Your task to perform on an android device: toggle notifications settings in the gmail app Image 0: 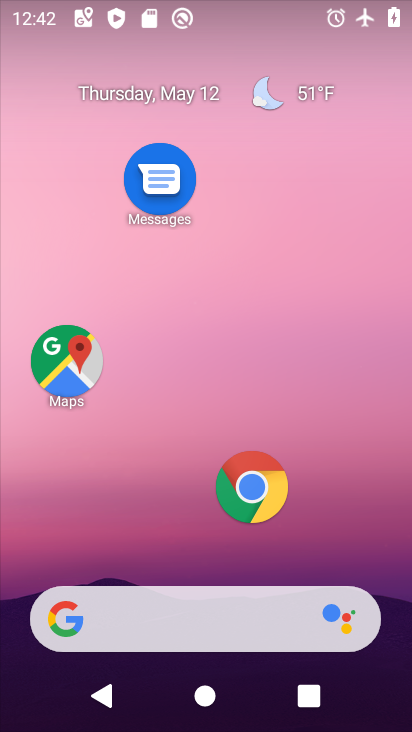
Step 0: drag from (201, 557) to (263, 163)
Your task to perform on an android device: toggle notifications settings in the gmail app Image 1: 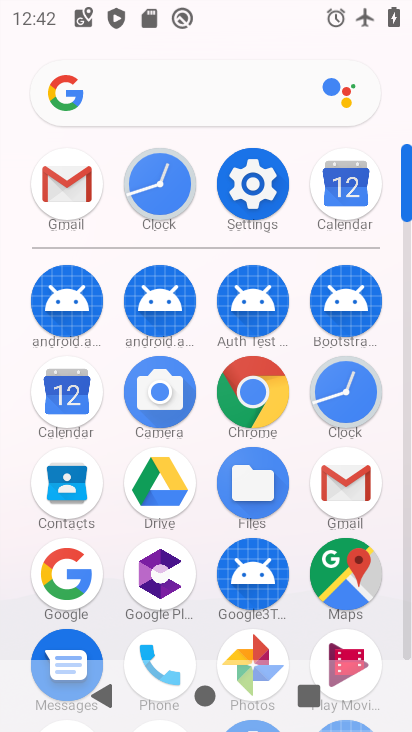
Step 1: click (74, 187)
Your task to perform on an android device: toggle notifications settings in the gmail app Image 2: 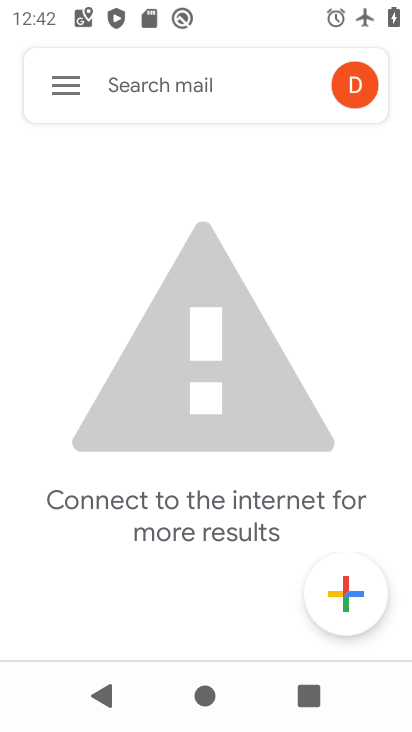
Step 2: click (76, 83)
Your task to perform on an android device: toggle notifications settings in the gmail app Image 3: 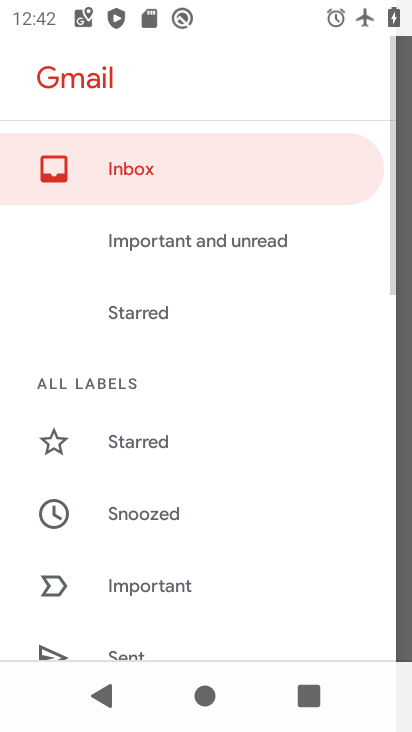
Step 3: drag from (213, 526) to (213, 240)
Your task to perform on an android device: toggle notifications settings in the gmail app Image 4: 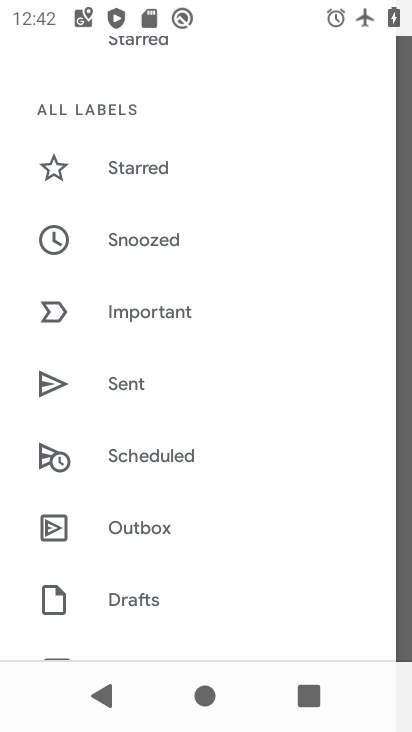
Step 4: drag from (169, 615) to (188, 308)
Your task to perform on an android device: toggle notifications settings in the gmail app Image 5: 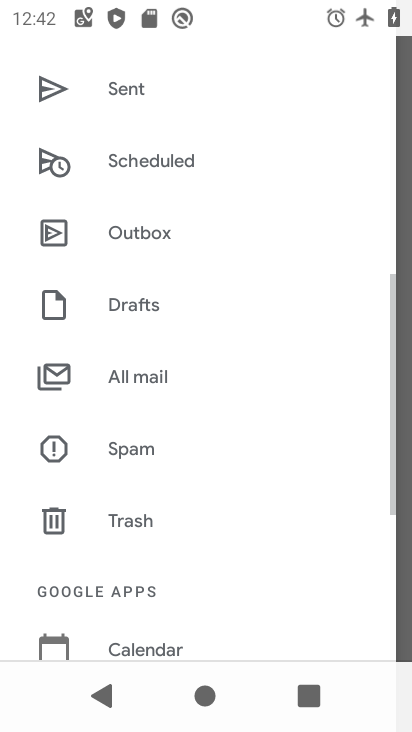
Step 5: drag from (162, 583) to (193, 269)
Your task to perform on an android device: toggle notifications settings in the gmail app Image 6: 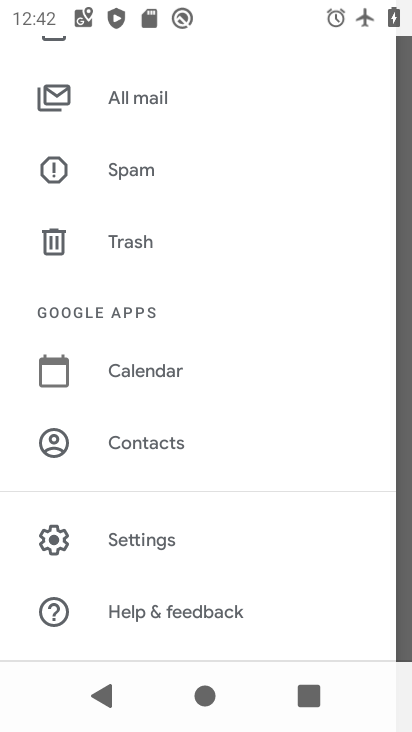
Step 6: click (149, 537)
Your task to perform on an android device: toggle notifications settings in the gmail app Image 7: 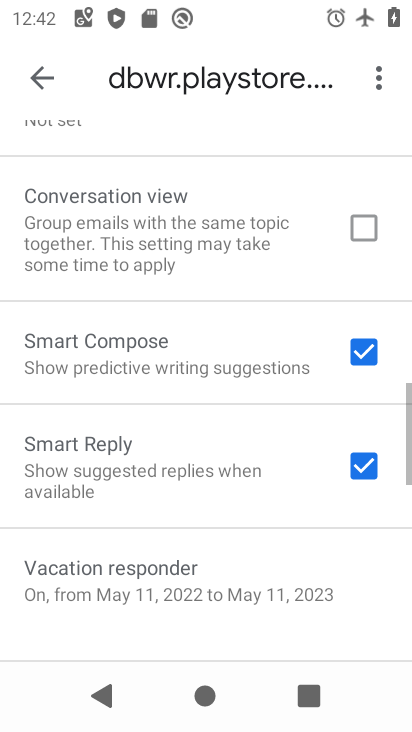
Step 7: drag from (179, 524) to (223, 250)
Your task to perform on an android device: toggle notifications settings in the gmail app Image 8: 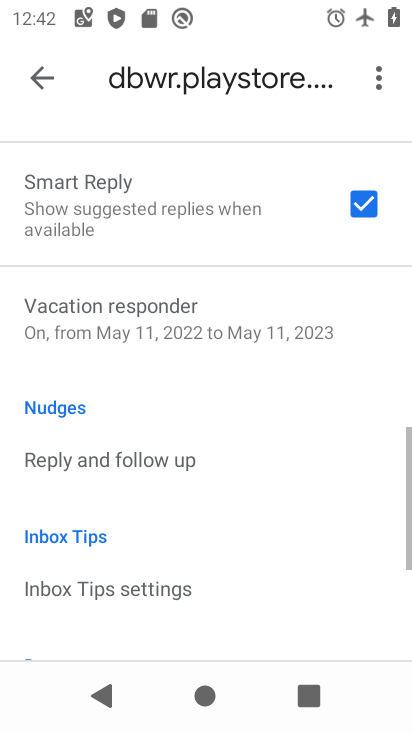
Step 8: click (216, 169)
Your task to perform on an android device: toggle notifications settings in the gmail app Image 9: 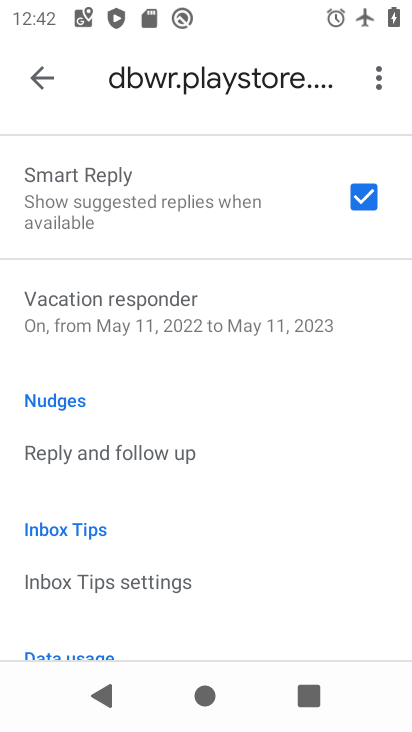
Step 9: drag from (191, 532) to (225, 313)
Your task to perform on an android device: toggle notifications settings in the gmail app Image 10: 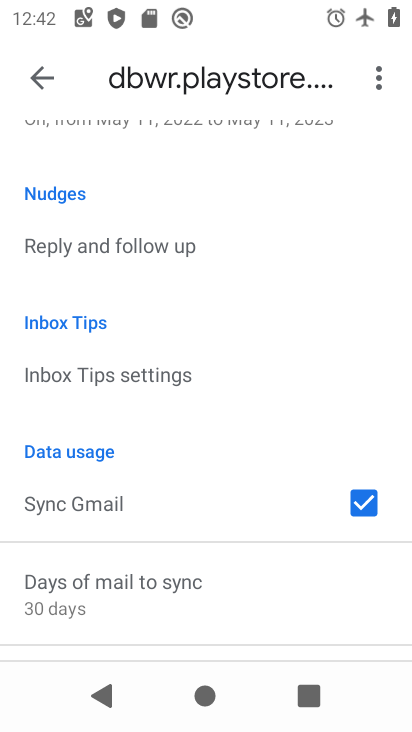
Step 10: drag from (244, 237) to (244, 521)
Your task to perform on an android device: toggle notifications settings in the gmail app Image 11: 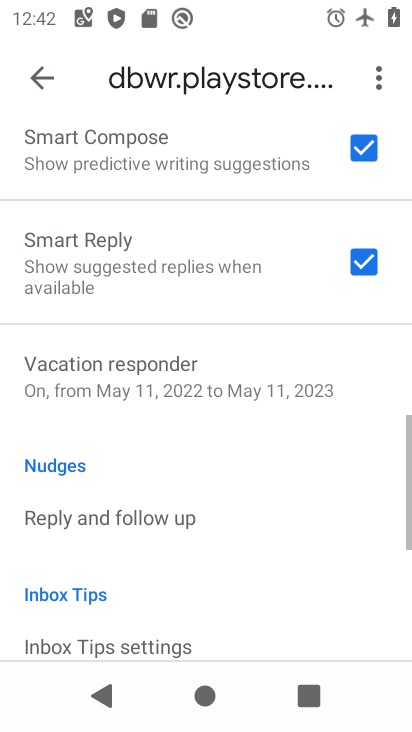
Step 11: drag from (257, 295) to (250, 526)
Your task to perform on an android device: toggle notifications settings in the gmail app Image 12: 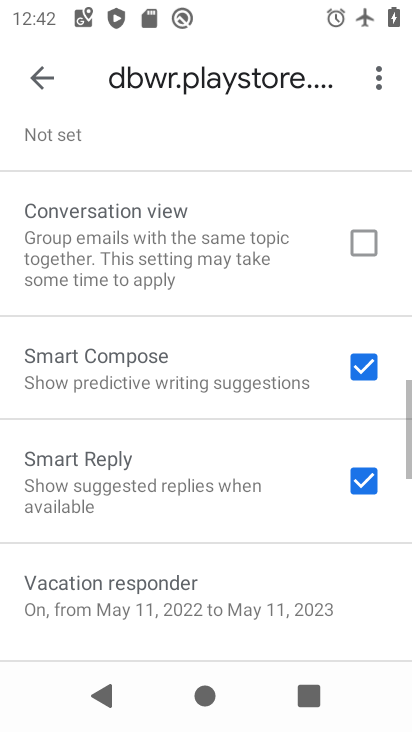
Step 12: drag from (257, 265) to (228, 521)
Your task to perform on an android device: toggle notifications settings in the gmail app Image 13: 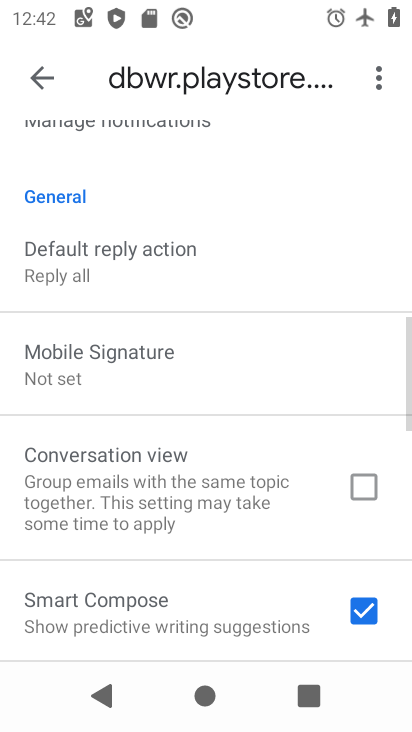
Step 13: drag from (213, 319) to (197, 563)
Your task to perform on an android device: toggle notifications settings in the gmail app Image 14: 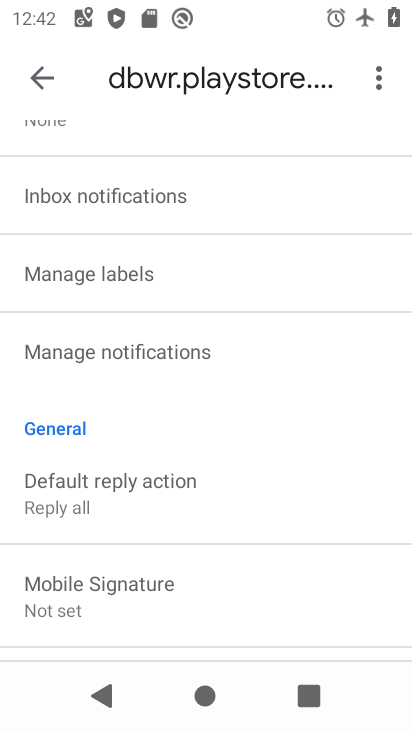
Step 14: click (187, 358)
Your task to perform on an android device: toggle notifications settings in the gmail app Image 15: 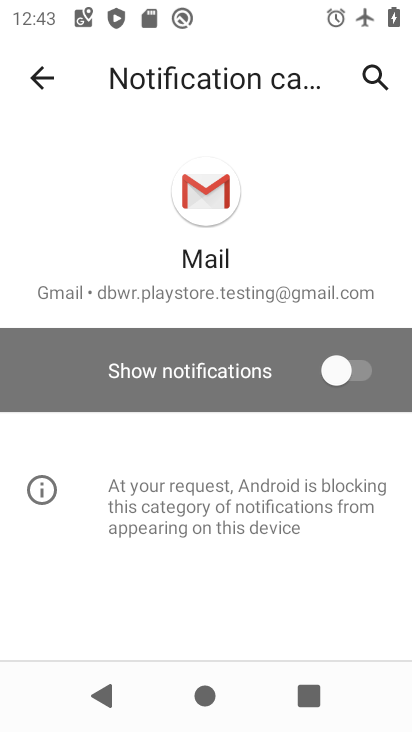
Step 15: click (352, 348)
Your task to perform on an android device: toggle notifications settings in the gmail app Image 16: 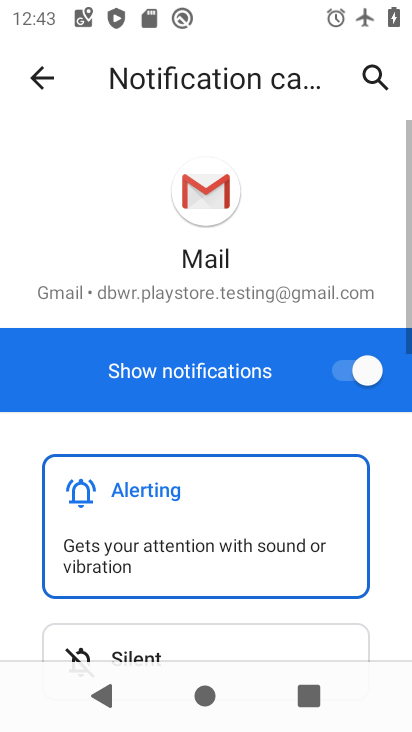
Step 16: task complete